Your task to perform on an android device: When is my next appointment? Image 0: 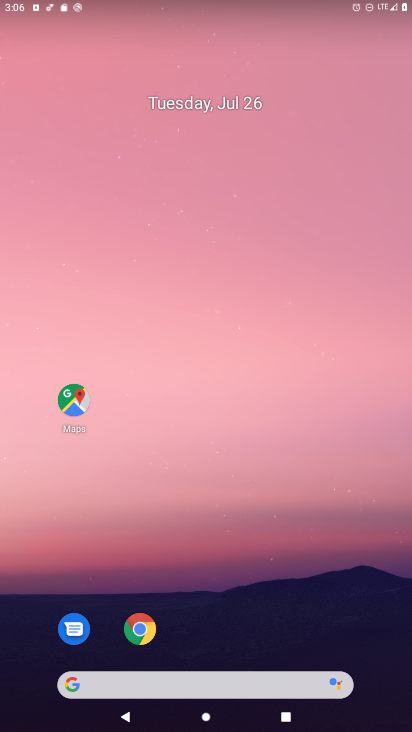
Step 0: drag from (372, 680) to (319, 222)
Your task to perform on an android device: When is my next appointment? Image 1: 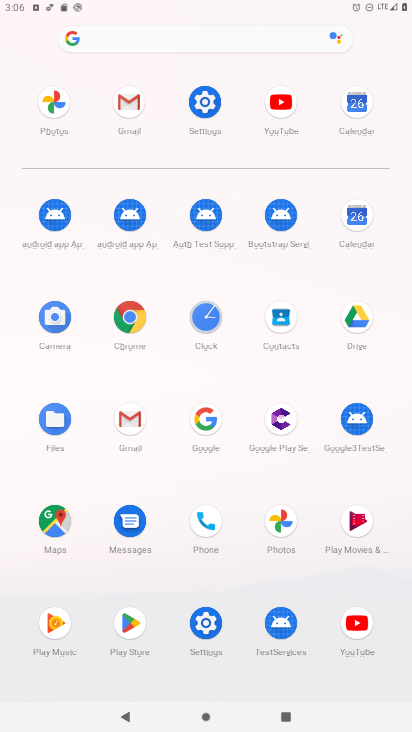
Step 1: click (355, 214)
Your task to perform on an android device: When is my next appointment? Image 2: 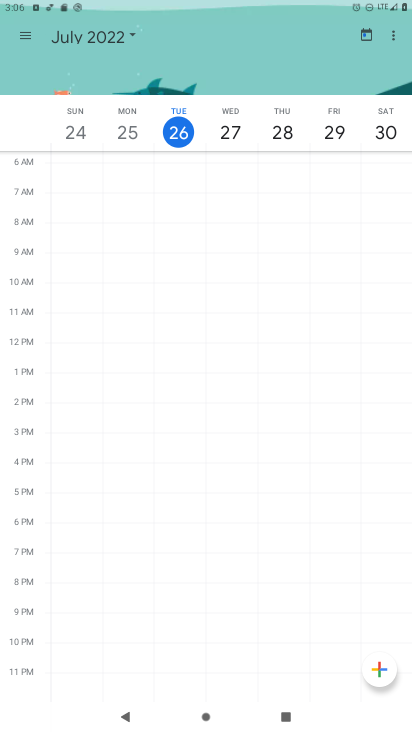
Step 2: click (23, 35)
Your task to perform on an android device: When is my next appointment? Image 3: 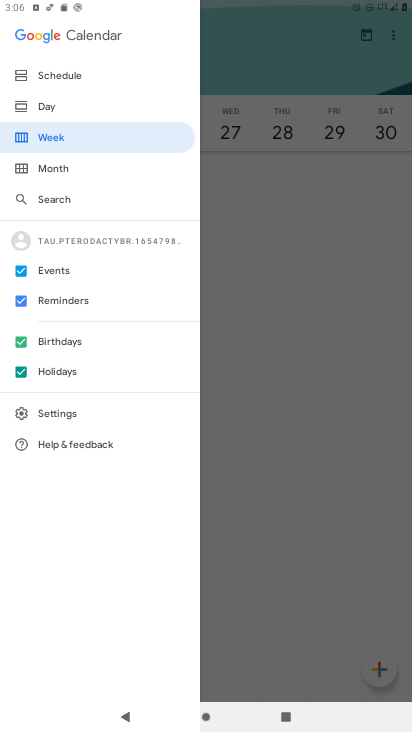
Step 3: click (49, 70)
Your task to perform on an android device: When is my next appointment? Image 4: 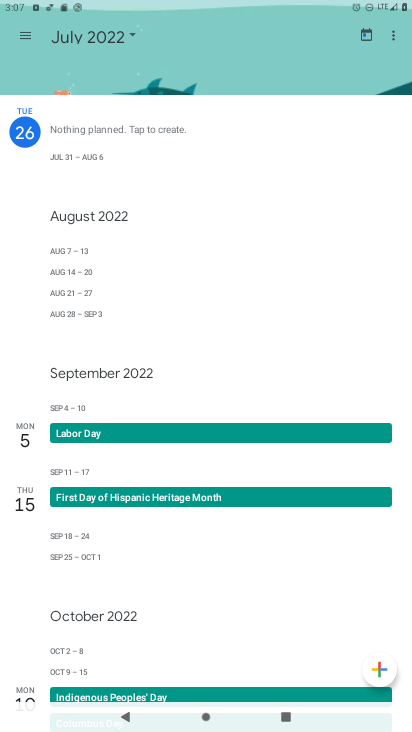
Step 4: task complete